Your task to perform on an android device: Toggle the flashlight Image 0: 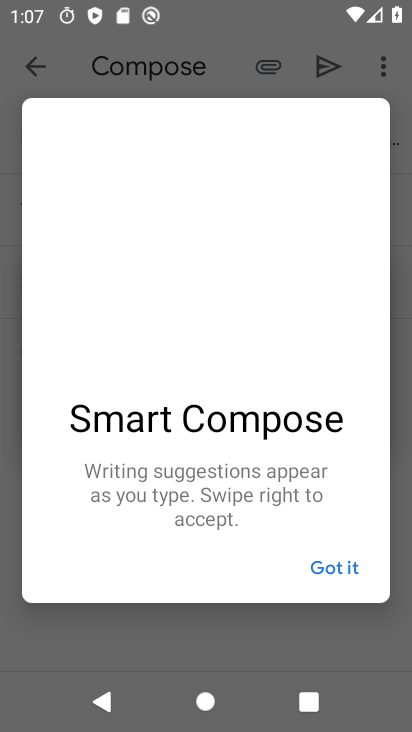
Step 0: press home button
Your task to perform on an android device: Toggle the flashlight Image 1: 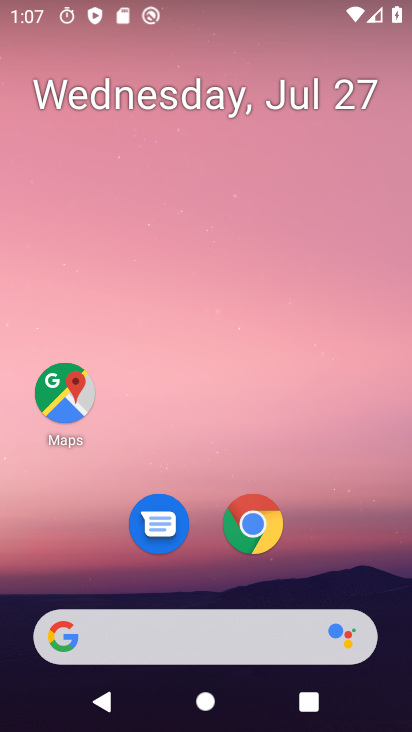
Step 1: drag from (320, 554) to (372, 48)
Your task to perform on an android device: Toggle the flashlight Image 2: 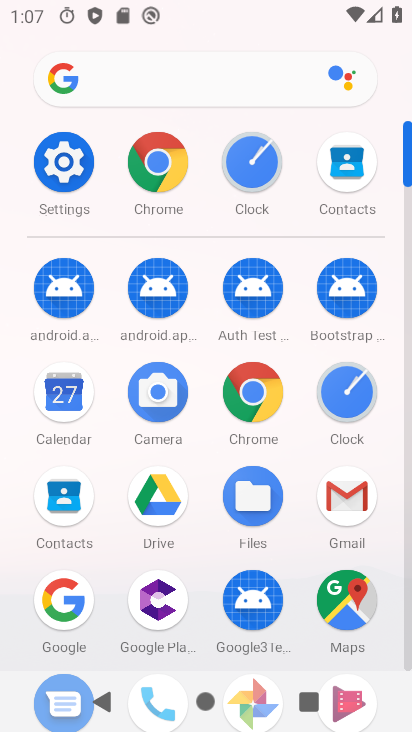
Step 2: click (73, 156)
Your task to perform on an android device: Toggle the flashlight Image 3: 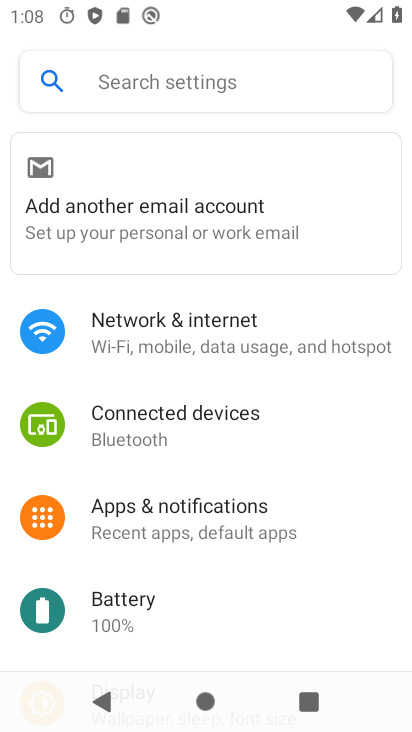
Step 3: click (284, 85)
Your task to perform on an android device: Toggle the flashlight Image 4: 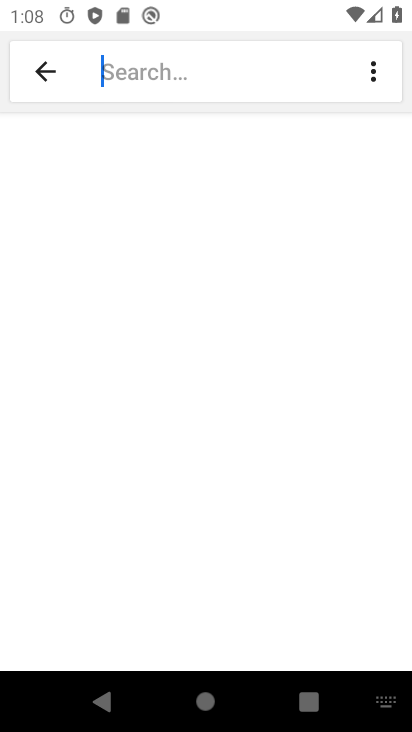
Step 4: type "Flashlight"
Your task to perform on an android device: Toggle the flashlight Image 5: 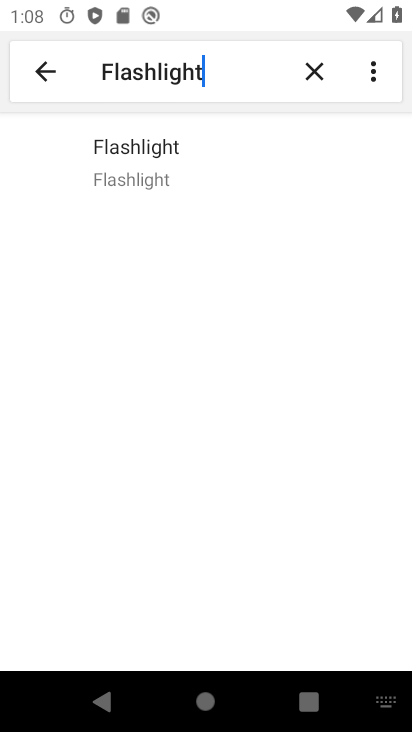
Step 5: click (133, 162)
Your task to perform on an android device: Toggle the flashlight Image 6: 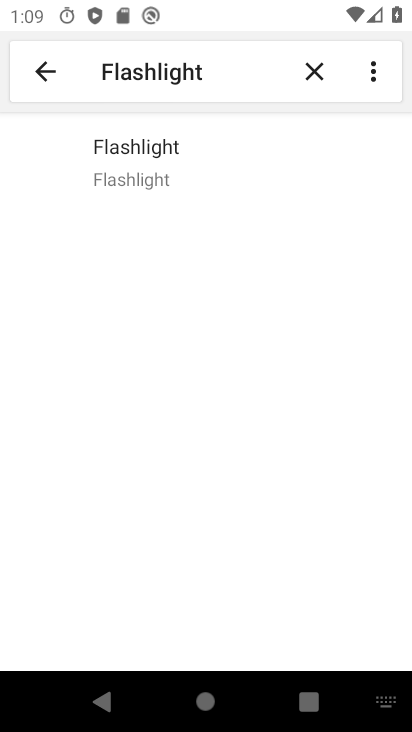
Step 6: task complete